Your task to perform on an android device: What's a goodrestaurant in Austin? Image 0: 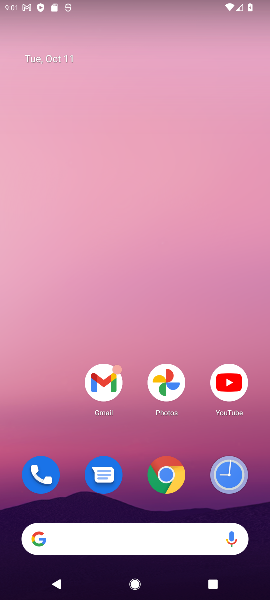
Step 0: click (161, 485)
Your task to perform on an android device: What's a goodrestaurant in Austin? Image 1: 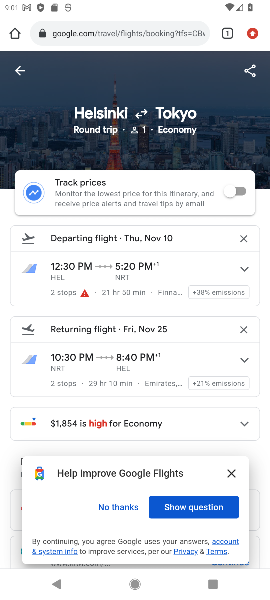
Step 1: click (131, 35)
Your task to perform on an android device: What's a goodrestaurant in Austin? Image 2: 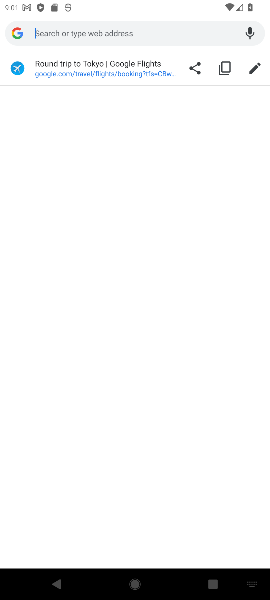
Step 2: type "What's a goodrestaurant in Austin?"
Your task to perform on an android device: What's a goodrestaurant in Austin? Image 3: 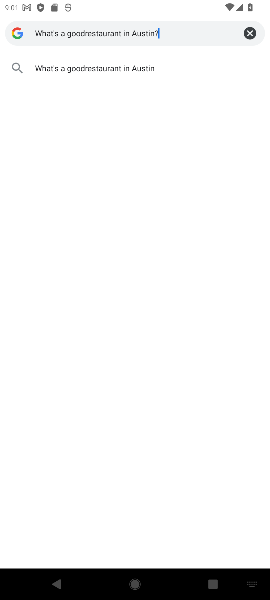
Step 3: type ""
Your task to perform on an android device: What's a goodrestaurant in Austin? Image 4: 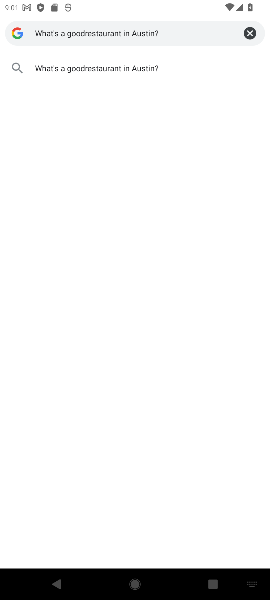
Step 4: press enter
Your task to perform on an android device: What's a goodrestaurant in Austin? Image 5: 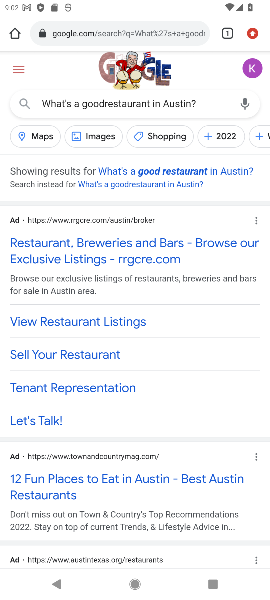
Step 5: click (164, 177)
Your task to perform on an android device: What's a goodrestaurant in Austin? Image 6: 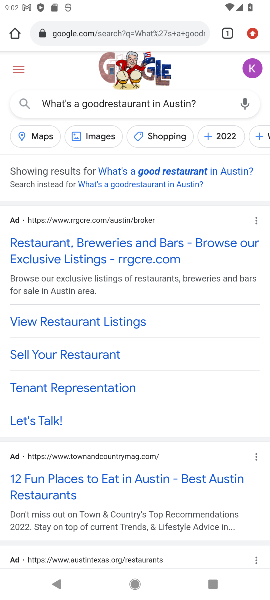
Step 6: click (163, 167)
Your task to perform on an android device: What's a goodrestaurant in Austin? Image 7: 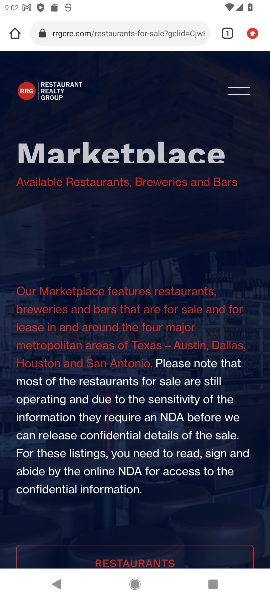
Step 7: drag from (155, 369) to (137, 205)
Your task to perform on an android device: What's a goodrestaurant in Austin? Image 8: 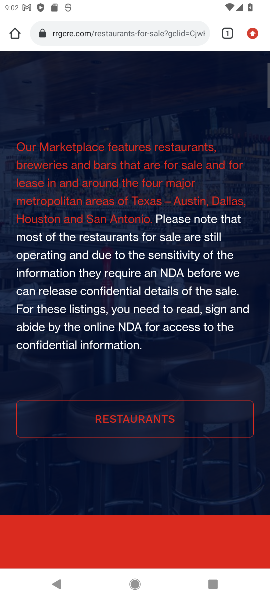
Step 8: drag from (121, 424) to (114, 126)
Your task to perform on an android device: What's a goodrestaurant in Austin? Image 9: 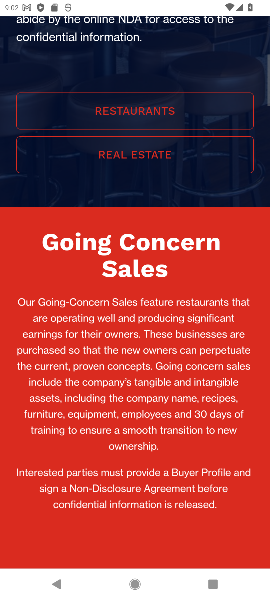
Step 9: drag from (123, 405) to (139, 105)
Your task to perform on an android device: What's a goodrestaurant in Austin? Image 10: 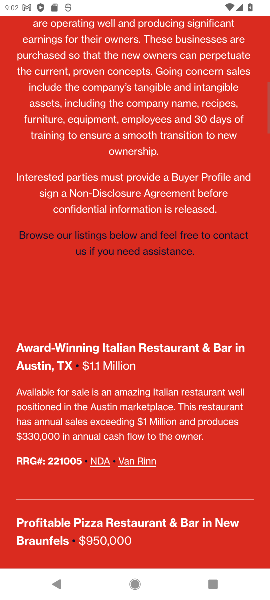
Step 10: press back button
Your task to perform on an android device: What's a goodrestaurant in Austin? Image 11: 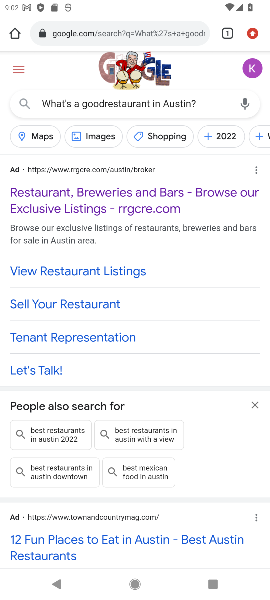
Step 11: drag from (105, 513) to (110, 144)
Your task to perform on an android device: What's a goodrestaurant in Austin? Image 12: 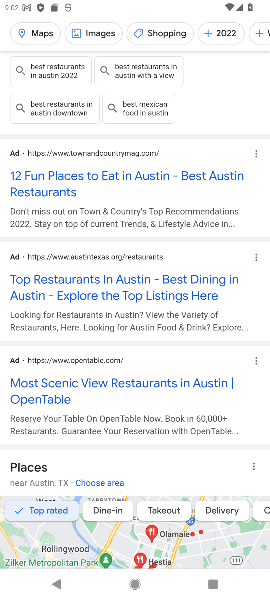
Step 12: click (94, 177)
Your task to perform on an android device: What's a goodrestaurant in Austin? Image 13: 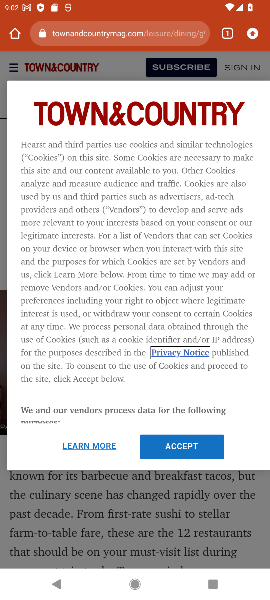
Step 13: click (174, 443)
Your task to perform on an android device: What's a goodrestaurant in Austin? Image 14: 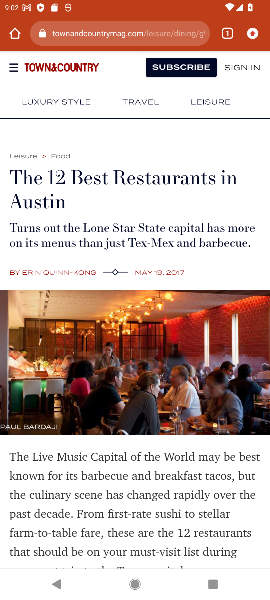
Step 14: drag from (161, 410) to (124, 119)
Your task to perform on an android device: What's a goodrestaurant in Austin? Image 15: 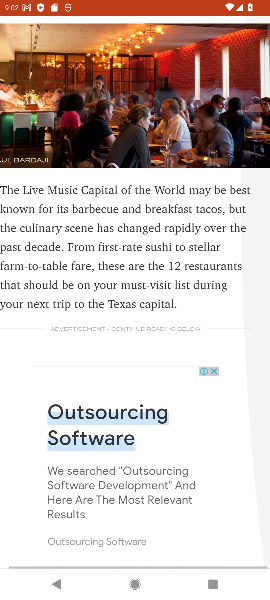
Step 15: drag from (113, 417) to (116, 99)
Your task to perform on an android device: What's a goodrestaurant in Austin? Image 16: 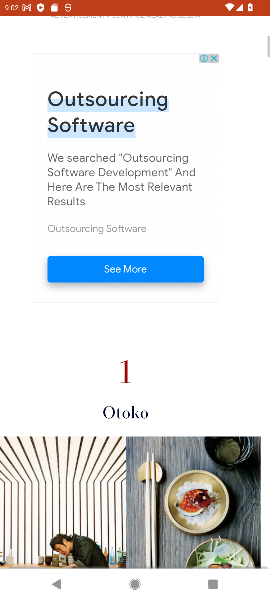
Step 16: drag from (131, 371) to (163, 114)
Your task to perform on an android device: What's a goodrestaurant in Austin? Image 17: 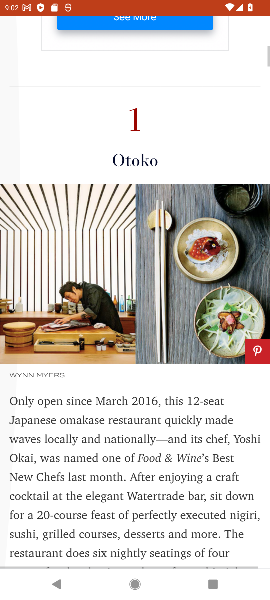
Step 17: drag from (182, 398) to (205, 152)
Your task to perform on an android device: What's a goodrestaurant in Austin? Image 18: 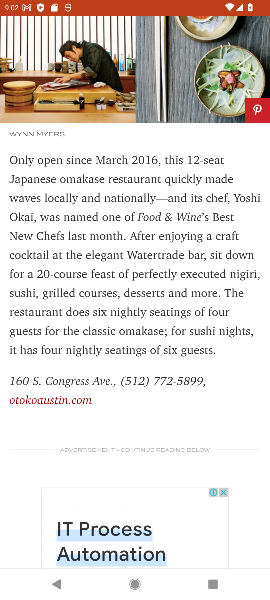
Step 18: drag from (192, 397) to (196, 158)
Your task to perform on an android device: What's a goodrestaurant in Austin? Image 19: 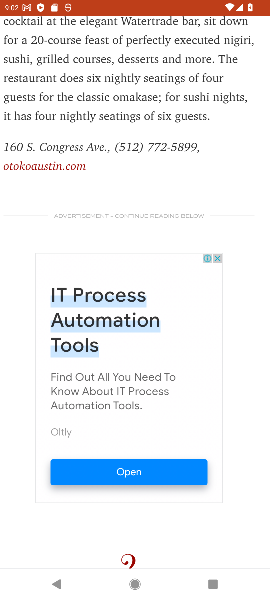
Step 19: drag from (169, 531) to (173, 80)
Your task to perform on an android device: What's a goodrestaurant in Austin? Image 20: 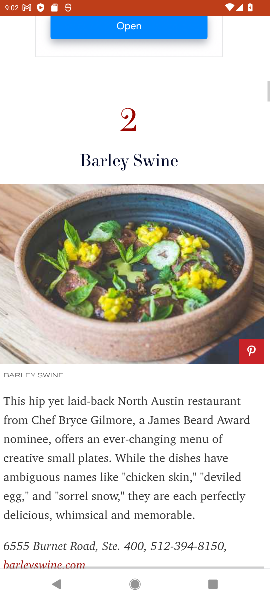
Step 20: drag from (137, 363) to (169, 107)
Your task to perform on an android device: What's a goodrestaurant in Austin? Image 21: 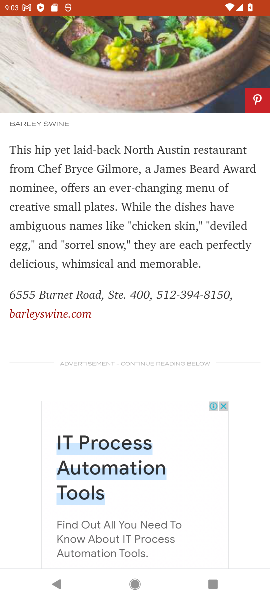
Step 21: drag from (229, 492) to (203, 139)
Your task to perform on an android device: What's a goodrestaurant in Austin? Image 22: 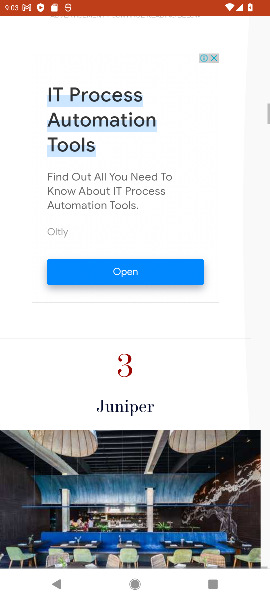
Step 22: drag from (174, 384) to (207, 112)
Your task to perform on an android device: What's a goodrestaurant in Austin? Image 23: 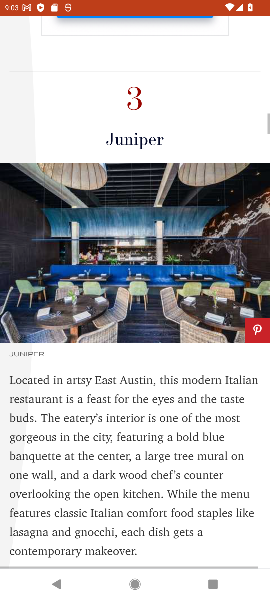
Step 23: drag from (180, 400) to (183, 111)
Your task to perform on an android device: What's a goodrestaurant in Austin? Image 24: 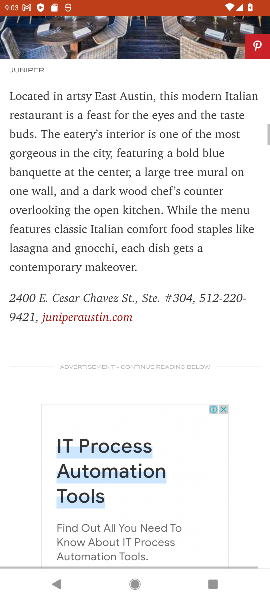
Step 24: drag from (191, 386) to (191, 122)
Your task to perform on an android device: What's a goodrestaurant in Austin? Image 25: 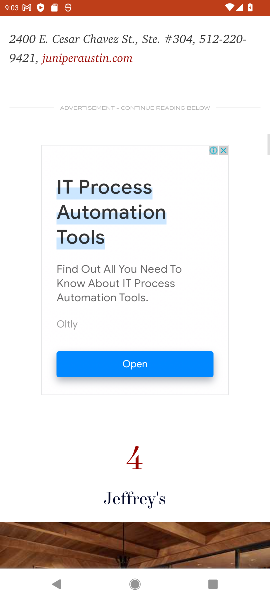
Step 25: drag from (167, 158) to (175, 82)
Your task to perform on an android device: What's a goodrestaurant in Austin? Image 26: 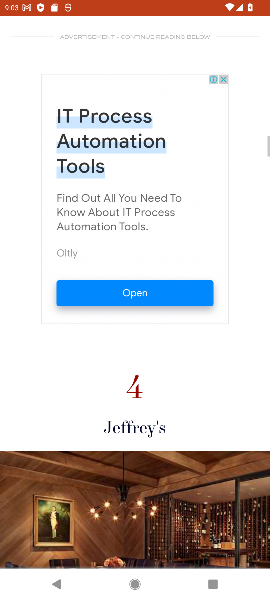
Step 26: drag from (160, 349) to (164, 44)
Your task to perform on an android device: What's a goodrestaurant in Austin? Image 27: 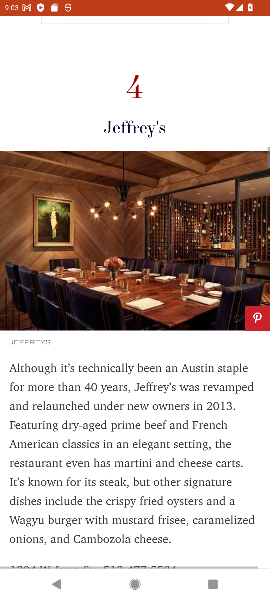
Step 27: drag from (168, 358) to (191, 119)
Your task to perform on an android device: What's a goodrestaurant in Austin? Image 28: 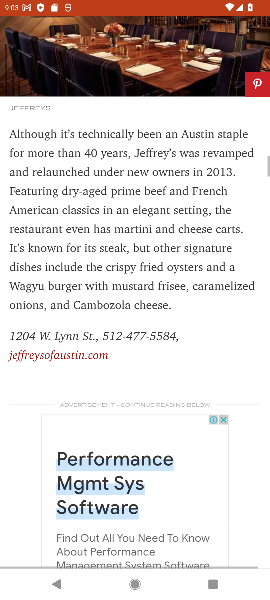
Step 28: drag from (150, 416) to (158, 314)
Your task to perform on an android device: What's a goodrestaurant in Austin? Image 29: 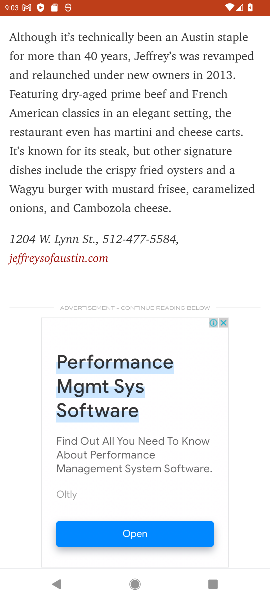
Step 29: drag from (142, 475) to (144, 51)
Your task to perform on an android device: What's a goodrestaurant in Austin? Image 30: 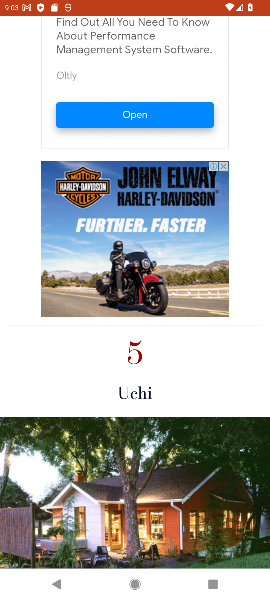
Step 30: drag from (216, 456) to (230, 86)
Your task to perform on an android device: What's a goodrestaurant in Austin? Image 31: 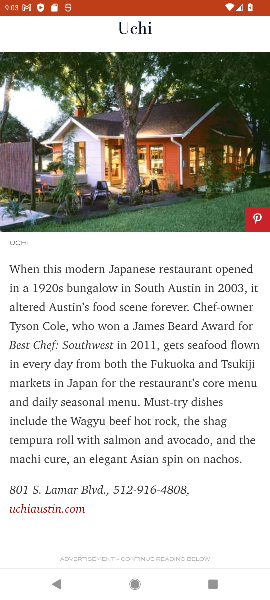
Step 31: drag from (204, 439) to (164, 197)
Your task to perform on an android device: What's a goodrestaurant in Austin? Image 32: 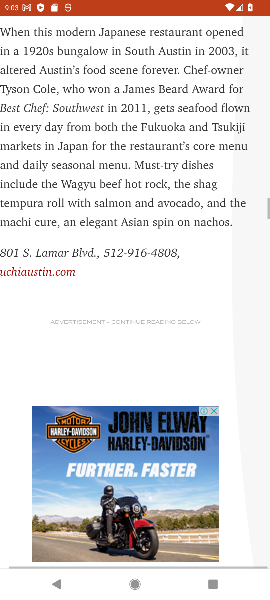
Step 32: drag from (151, 434) to (180, 188)
Your task to perform on an android device: What's a goodrestaurant in Austin? Image 33: 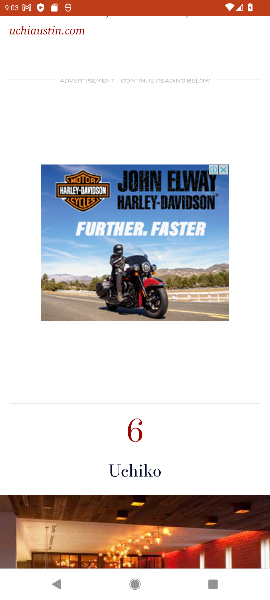
Step 33: drag from (170, 403) to (187, 182)
Your task to perform on an android device: What's a goodrestaurant in Austin? Image 34: 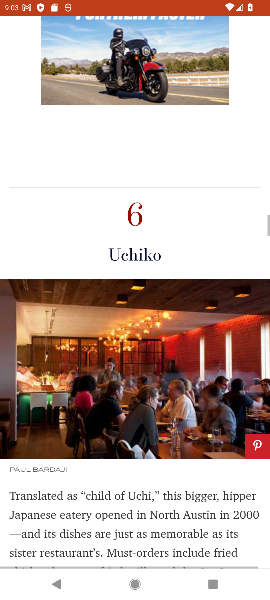
Step 34: drag from (186, 389) to (219, 231)
Your task to perform on an android device: What's a goodrestaurant in Austin? Image 35: 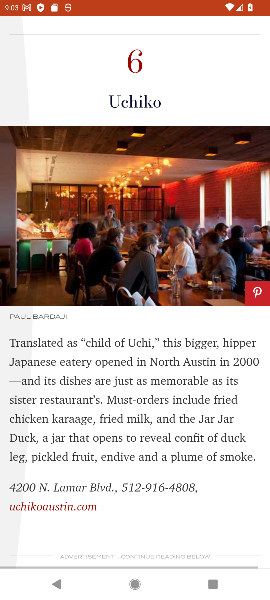
Step 35: drag from (189, 495) to (207, 264)
Your task to perform on an android device: What's a goodrestaurant in Austin? Image 36: 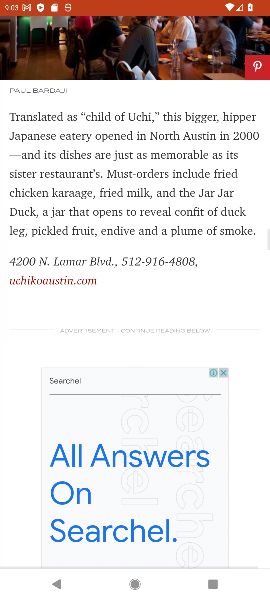
Step 36: drag from (167, 501) to (193, 226)
Your task to perform on an android device: What's a goodrestaurant in Austin? Image 37: 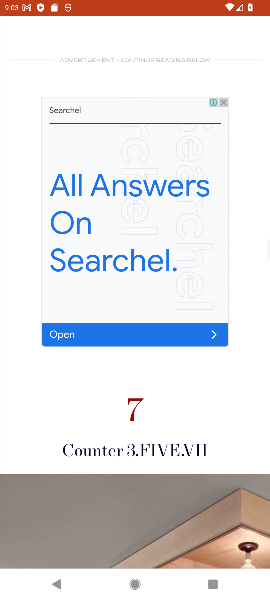
Step 37: drag from (177, 407) to (196, 280)
Your task to perform on an android device: What's a goodrestaurant in Austin? Image 38: 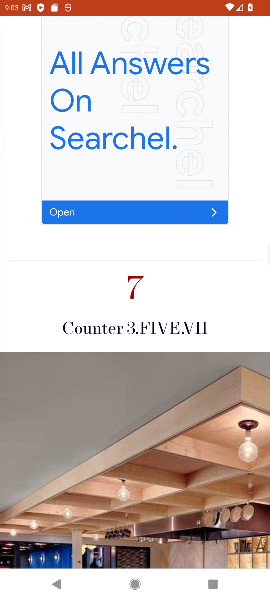
Step 38: drag from (180, 427) to (200, 206)
Your task to perform on an android device: What's a goodrestaurant in Austin? Image 39: 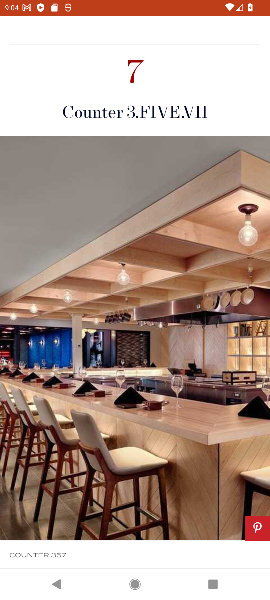
Step 39: drag from (214, 436) to (234, 155)
Your task to perform on an android device: What's a goodrestaurant in Austin? Image 40: 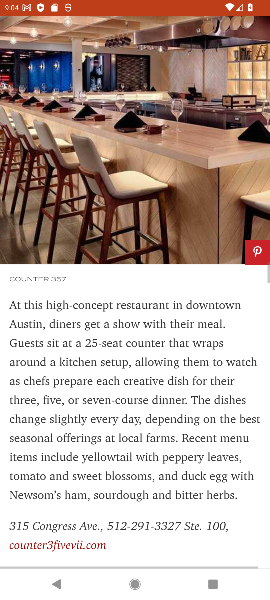
Step 40: drag from (231, 401) to (239, 214)
Your task to perform on an android device: What's a goodrestaurant in Austin? Image 41: 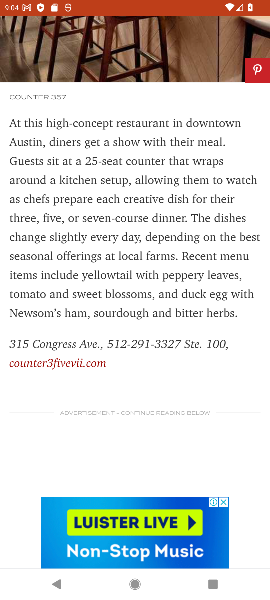
Step 41: drag from (218, 383) to (212, 206)
Your task to perform on an android device: What's a goodrestaurant in Austin? Image 42: 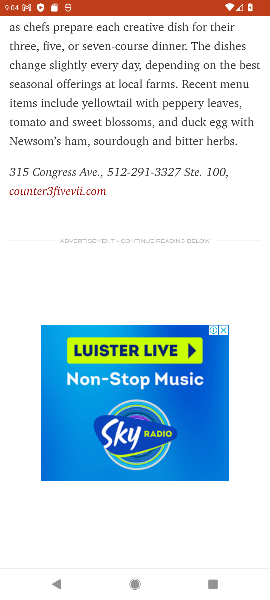
Step 42: drag from (179, 374) to (220, 123)
Your task to perform on an android device: What's a goodrestaurant in Austin? Image 43: 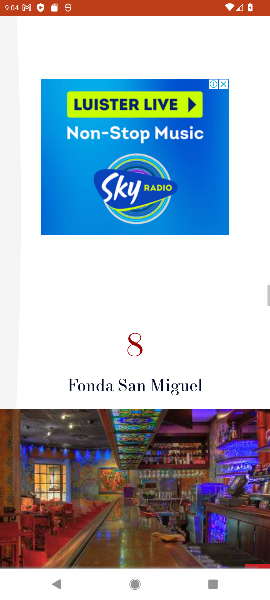
Step 43: drag from (177, 368) to (196, 229)
Your task to perform on an android device: What's a goodrestaurant in Austin? Image 44: 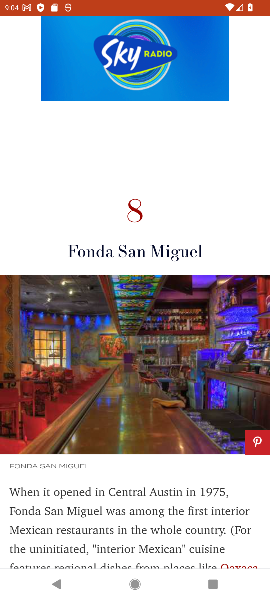
Step 44: drag from (197, 513) to (202, 217)
Your task to perform on an android device: What's a goodrestaurant in Austin? Image 45: 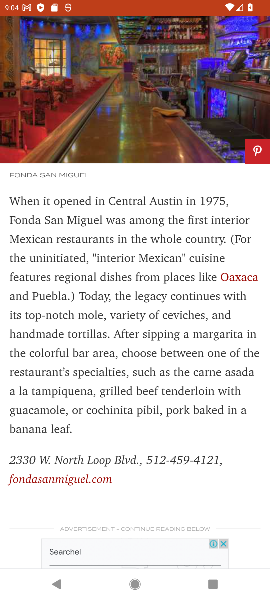
Step 45: drag from (214, 377) to (210, 312)
Your task to perform on an android device: What's a goodrestaurant in Austin? Image 46: 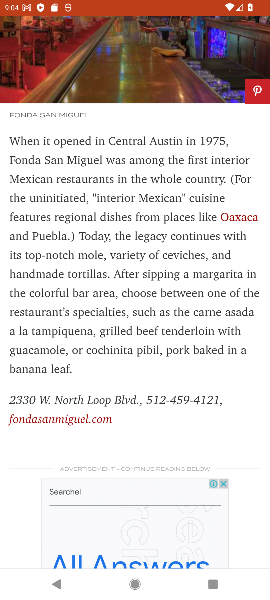
Step 46: drag from (225, 432) to (224, 244)
Your task to perform on an android device: What's a goodrestaurant in Austin? Image 47: 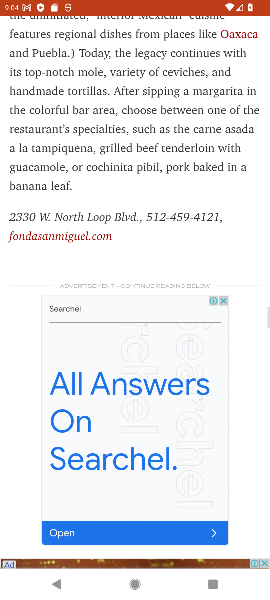
Step 47: drag from (202, 384) to (198, 284)
Your task to perform on an android device: What's a goodrestaurant in Austin? Image 48: 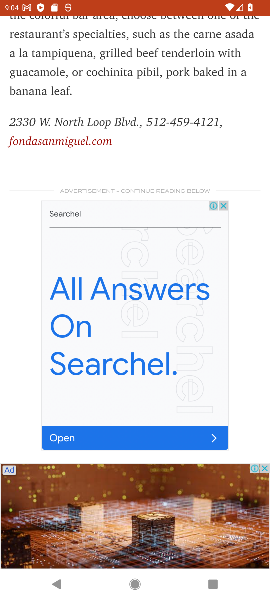
Step 48: drag from (172, 425) to (195, 221)
Your task to perform on an android device: What's a goodrestaurant in Austin? Image 49: 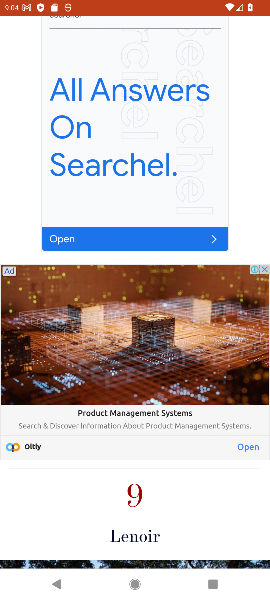
Step 49: drag from (174, 405) to (216, 231)
Your task to perform on an android device: What's a goodrestaurant in Austin? Image 50: 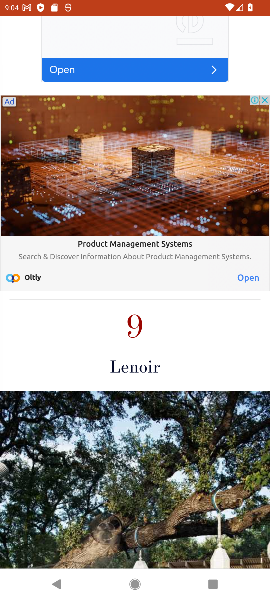
Step 50: drag from (204, 313) to (222, 205)
Your task to perform on an android device: What's a goodrestaurant in Austin? Image 51: 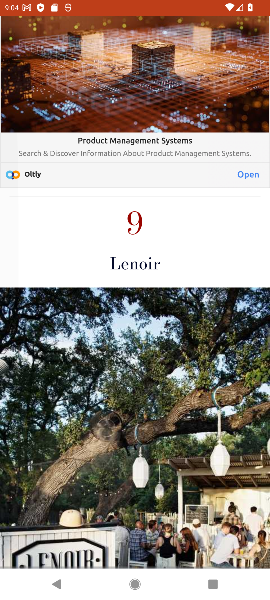
Step 51: drag from (216, 422) to (223, 279)
Your task to perform on an android device: What's a goodrestaurant in Austin? Image 52: 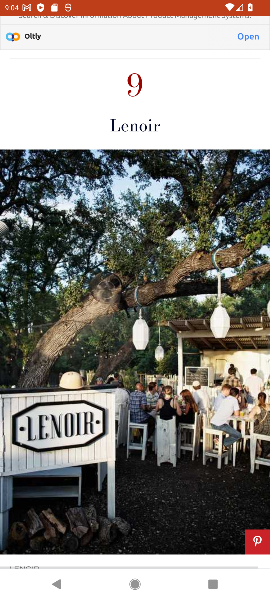
Step 52: drag from (208, 451) to (213, 293)
Your task to perform on an android device: What's a goodrestaurant in Austin? Image 53: 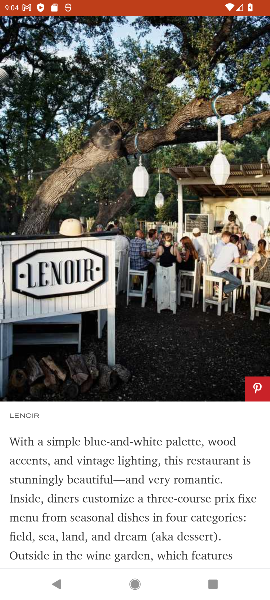
Step 53: drag from (195, 344) to (194, 302)
Your task to perform on an android device: What's a goodrestaurant in Austin? Image 54: 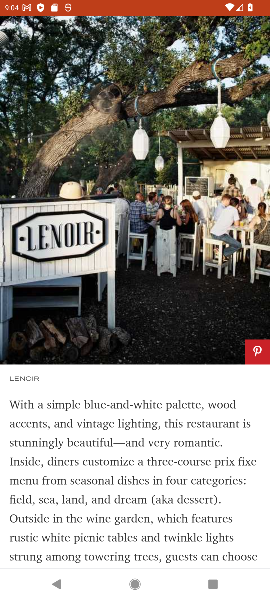
Step 54: drag from (185, 400) to (208, 142)
Your task to perform on an android device: What's a goodrestaurant in Austin? Image 55: 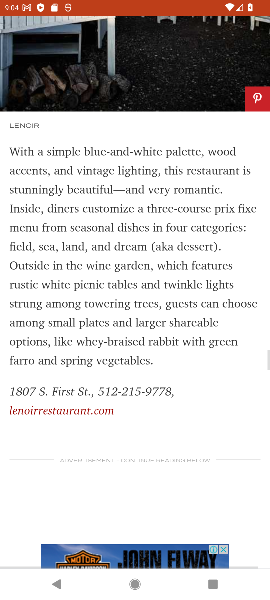
Step 55: drag from (197, 364) to (214, 165)
Your task to perform on an android device: What's a goodrestaurant in Austin? Image 56: 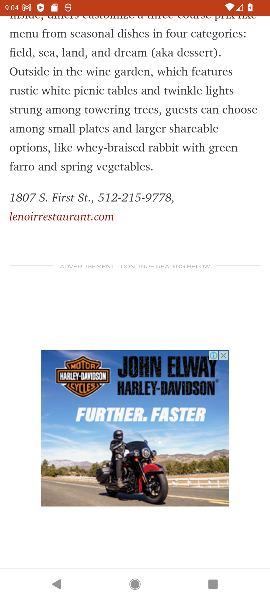
Step 56: drag from (198, 379) to (216, 194)
Your task to perform on an android device: What's a goodrestaurant in Austin? Image 57: 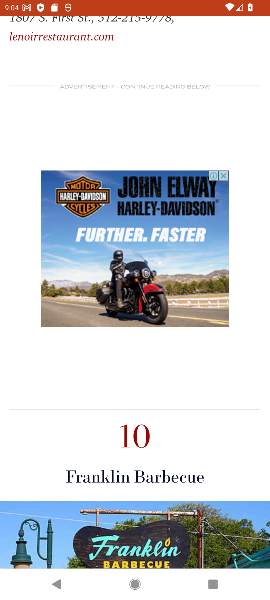
Step 57: click (219, 199)
Your task to perform on an android device: What's a goodrestaurant in Austin? Image 58: 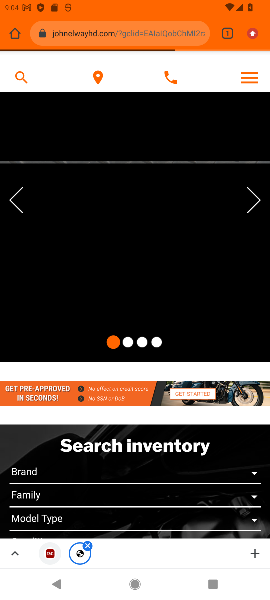
Step 58: task complete